Your task to perform on an android device: See recent photos Image 0: 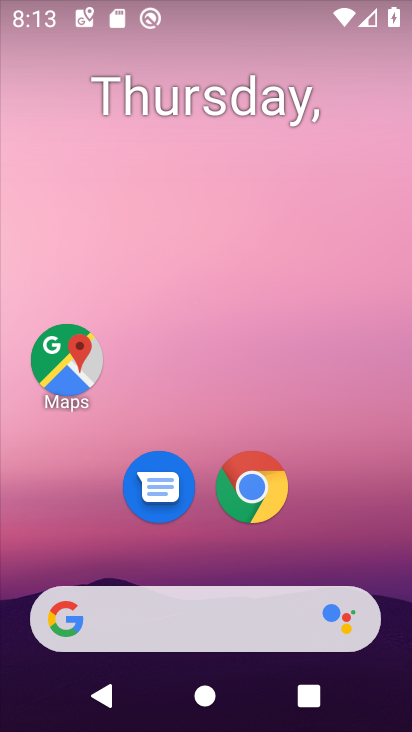
Step 0: drag from (208, 474) to (251, 61)
Your task to perform on an android device: See recent photos Image 1: 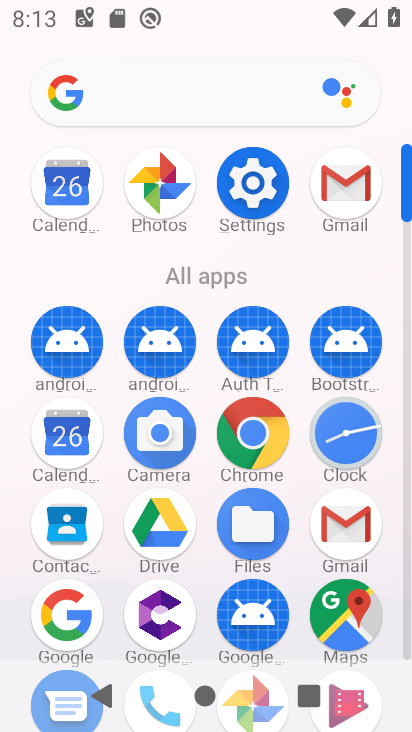
Step 1: drag from (241, 586) to (257, 204)
Your task to perform on an android device: See recent photos Image 2: 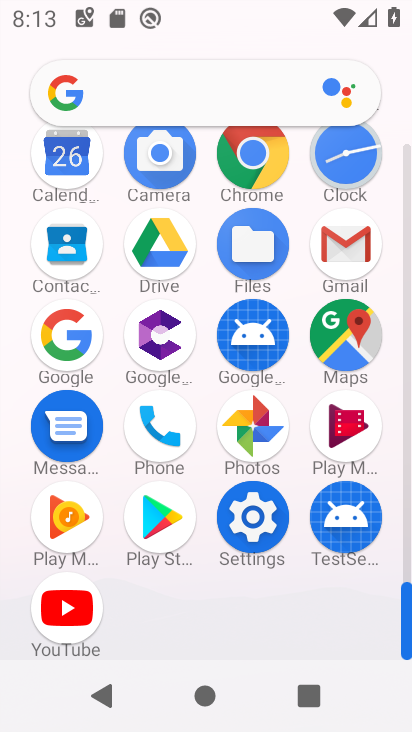
Step 2: click (256, 431)
Your task to perform on an android device: See recent photos Image 3: 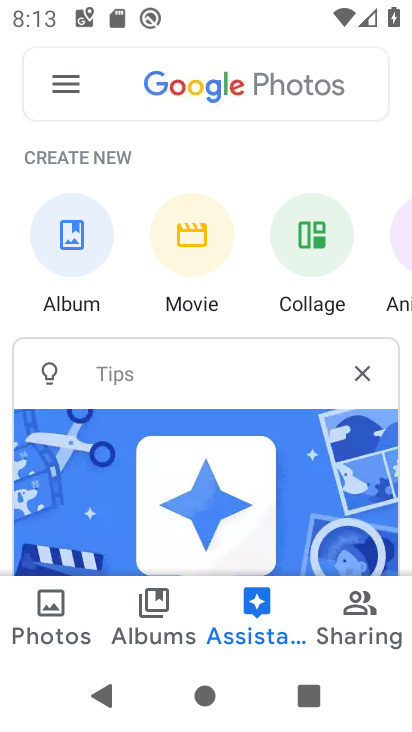
Step 3: click (69, 622)
Your task to perform on an android device: See recent photos Image 4: 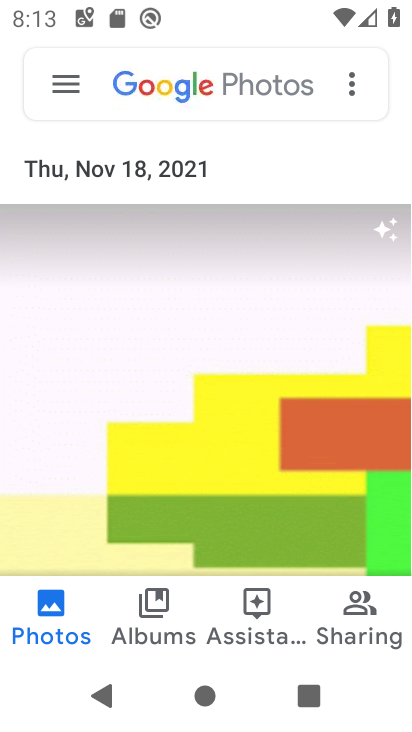
Step 4: task complete